Your task to perform on an android device: check android version Image 0: 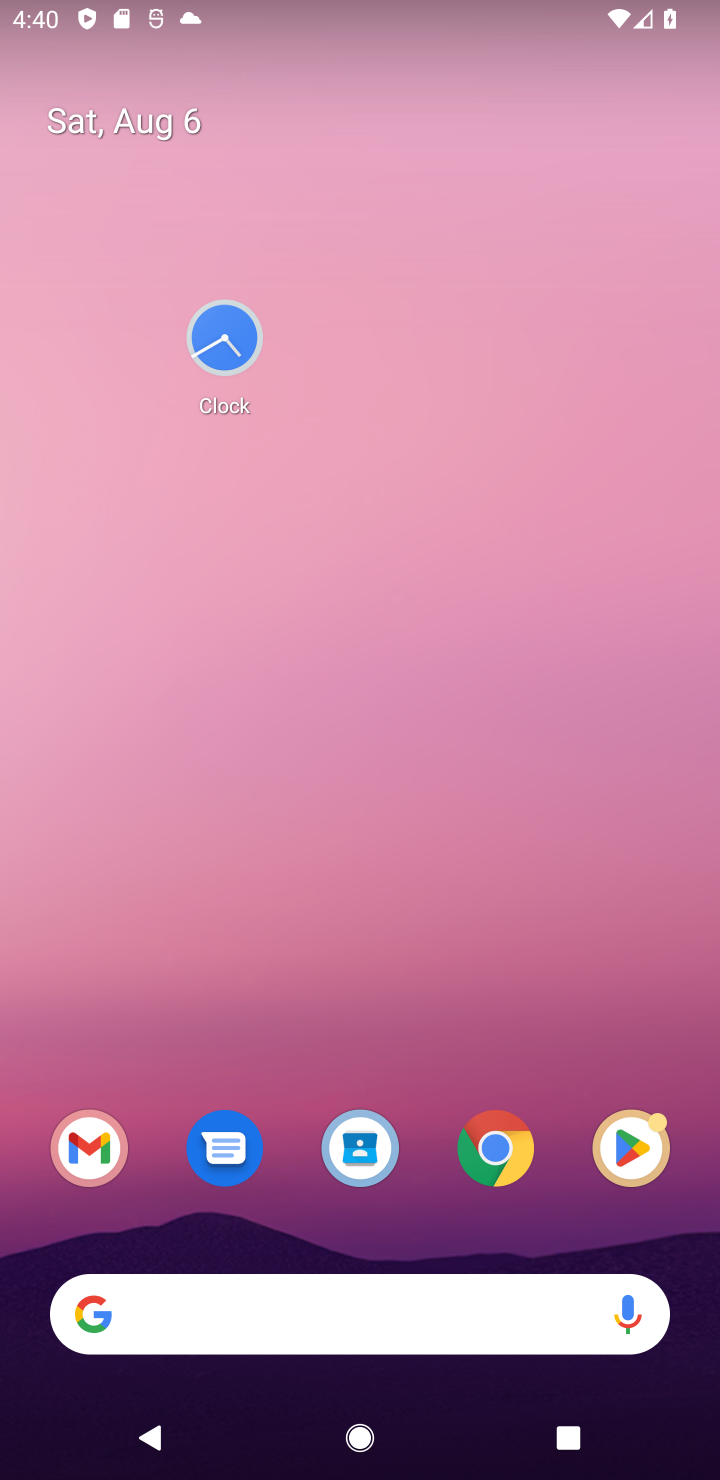
Step 0: drag from (306, 1220) to (600, 130)
Your task to perform on an android device: check android version Image 1: 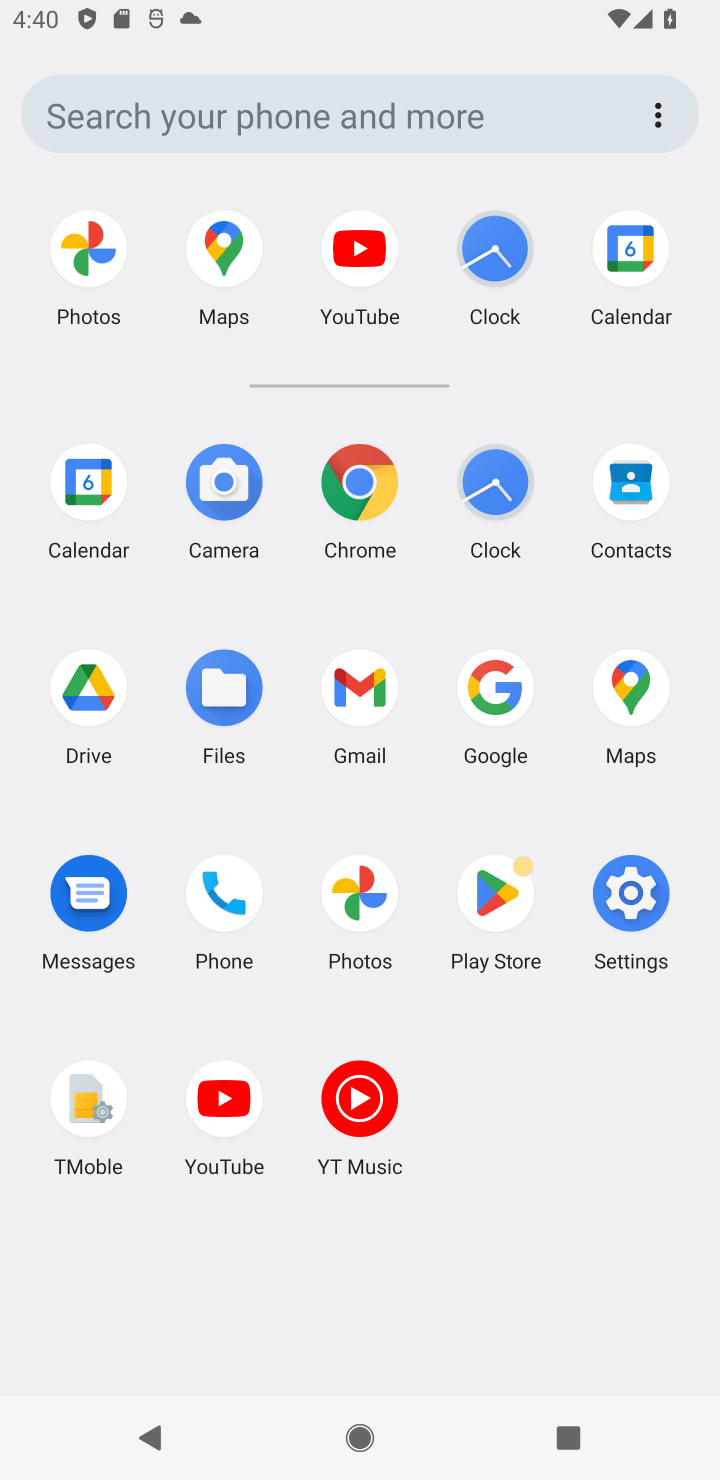
Step 1: click (635, 888)
Your task to perform on an android device: check android version Image 2: 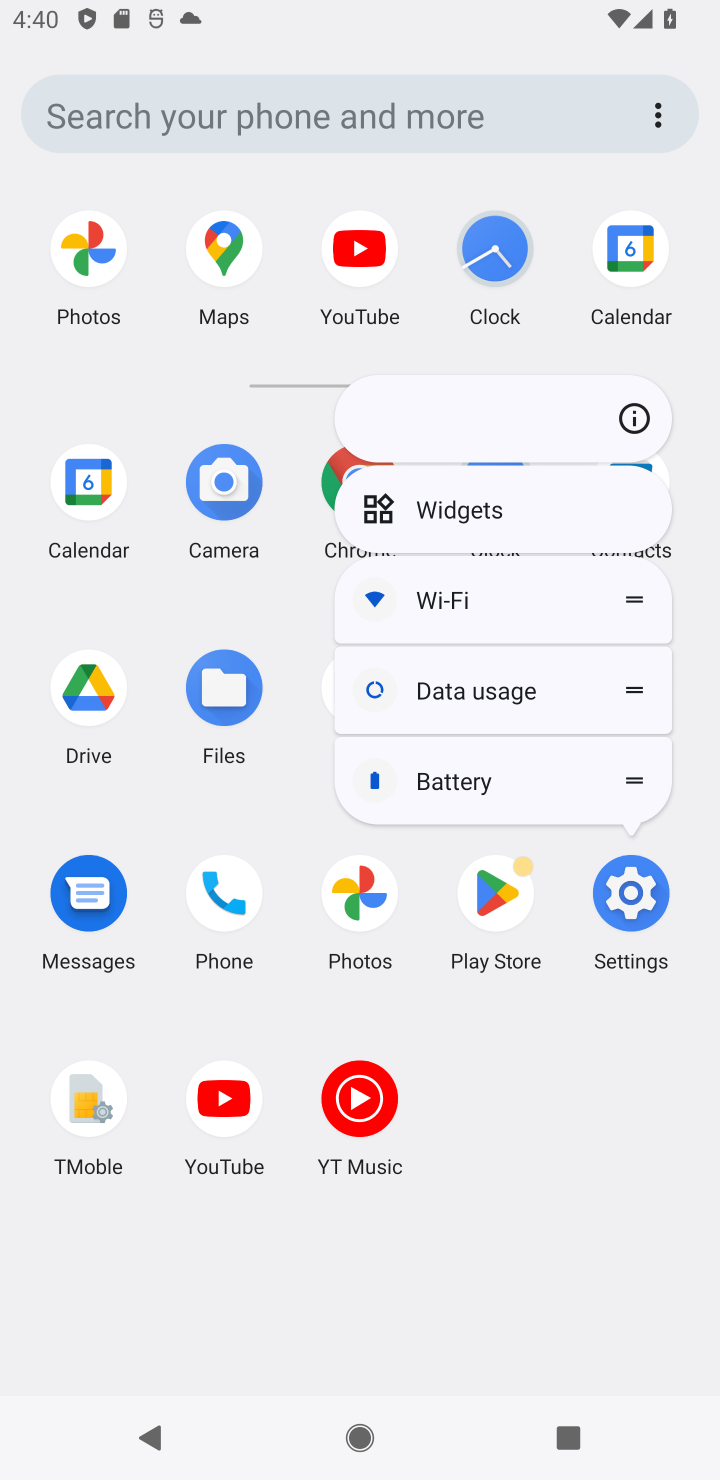
Step 2: click (642, 426)
Your task to perform on an android device: check android version Image 3: 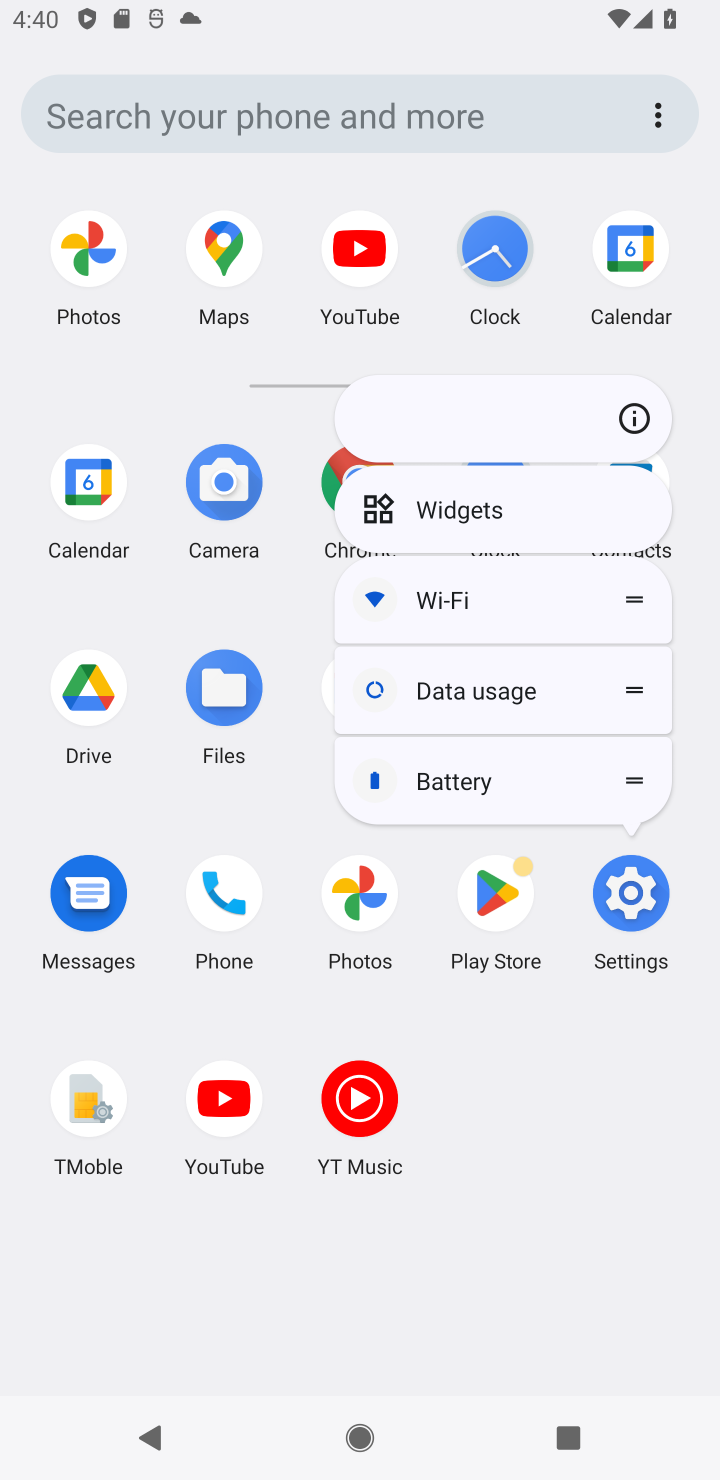
Step 3: click (644, 880)
Your task to perform on an android device: check android version Image 4: 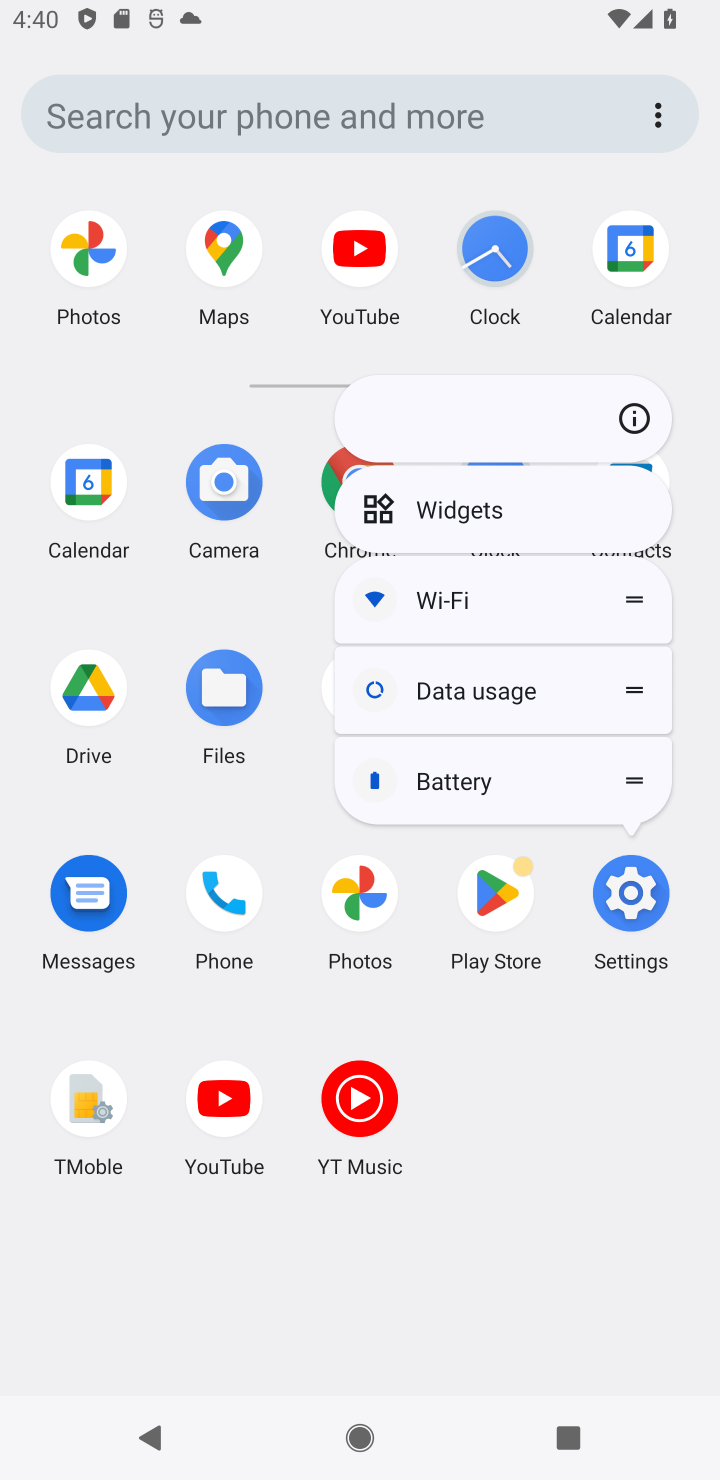
Step 4: click (620, 879)
Your task to perform on an android device: check android version Image 5: 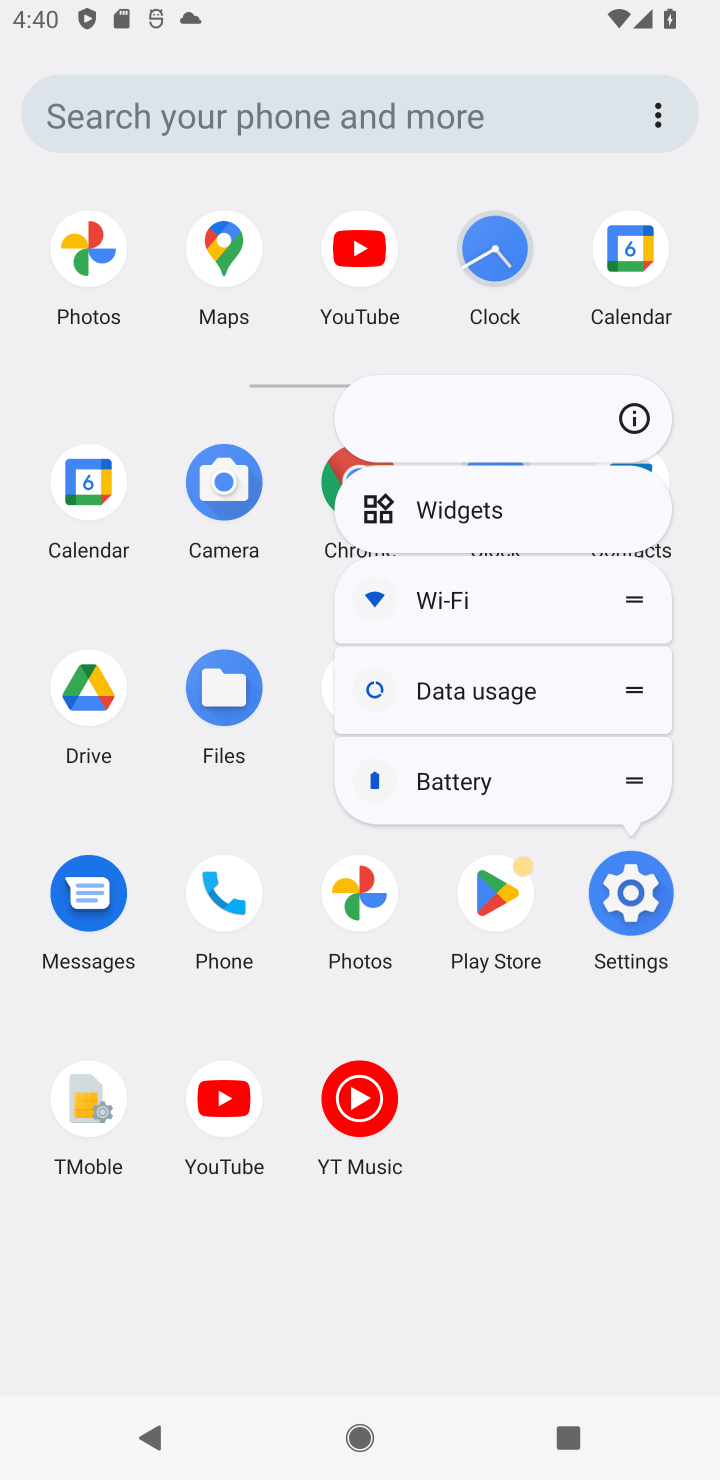
Step 5: click (620, 879)
Your task to perform on an android device: check android version Image 6: 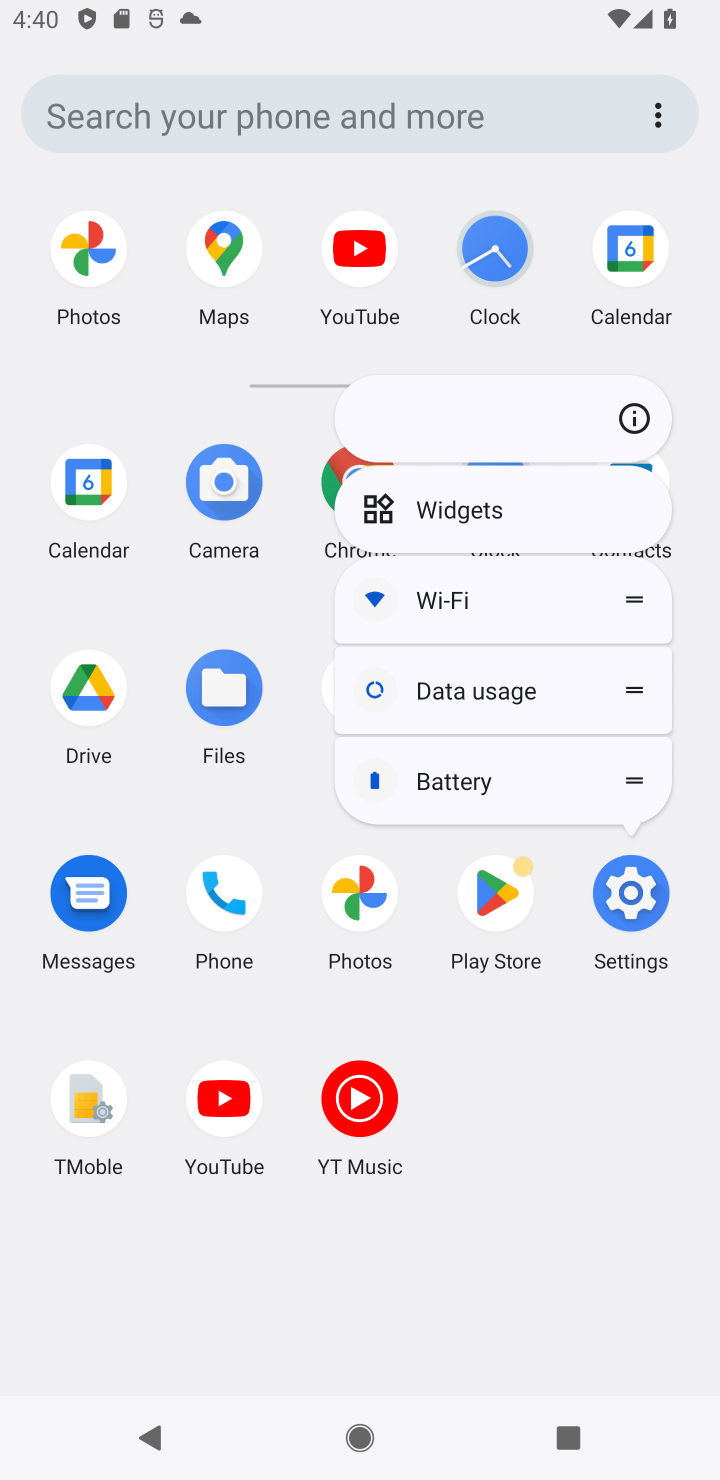
Step 6: click (620, 881)
Your task to perform on an android device: check android version Image 7: 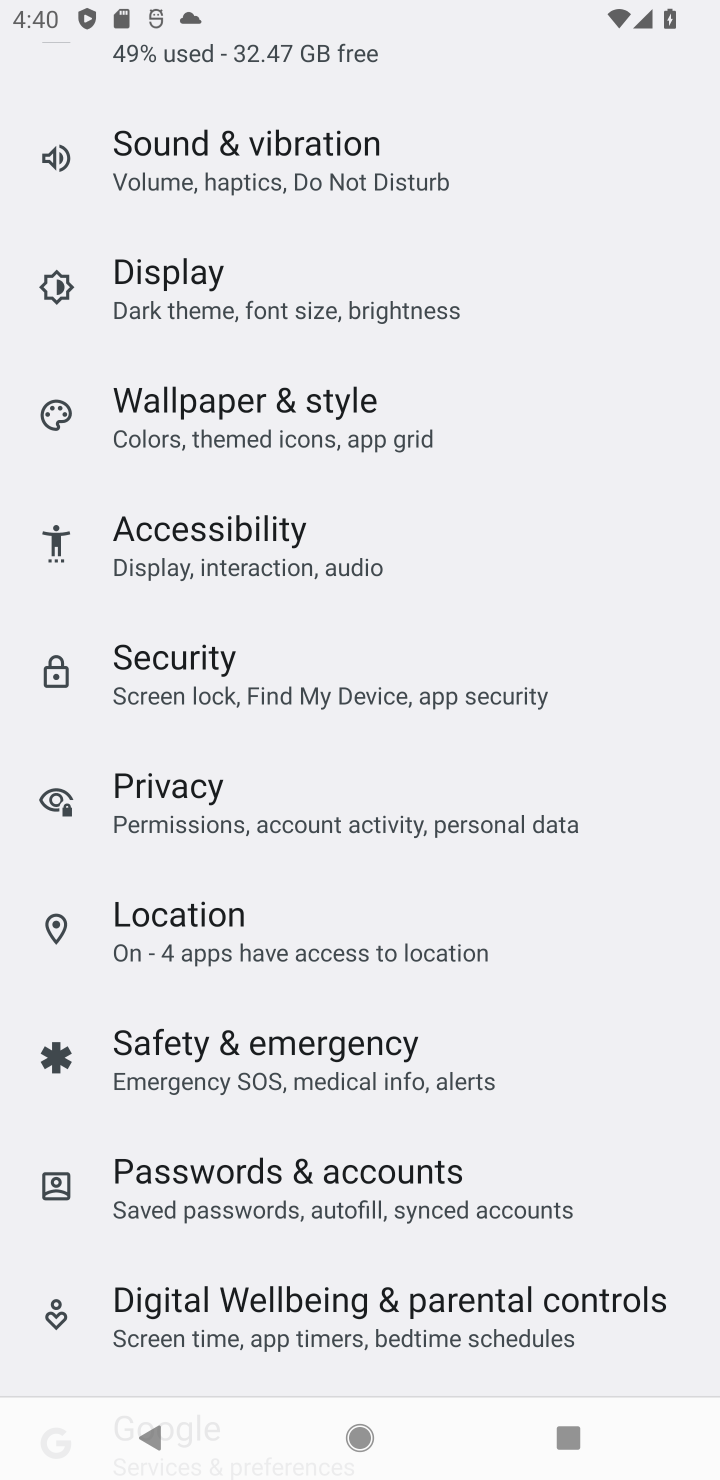
Step 7: drag from (341, 1215) to (441, 527)
Your task to perform on an android device: check android version Image 8: 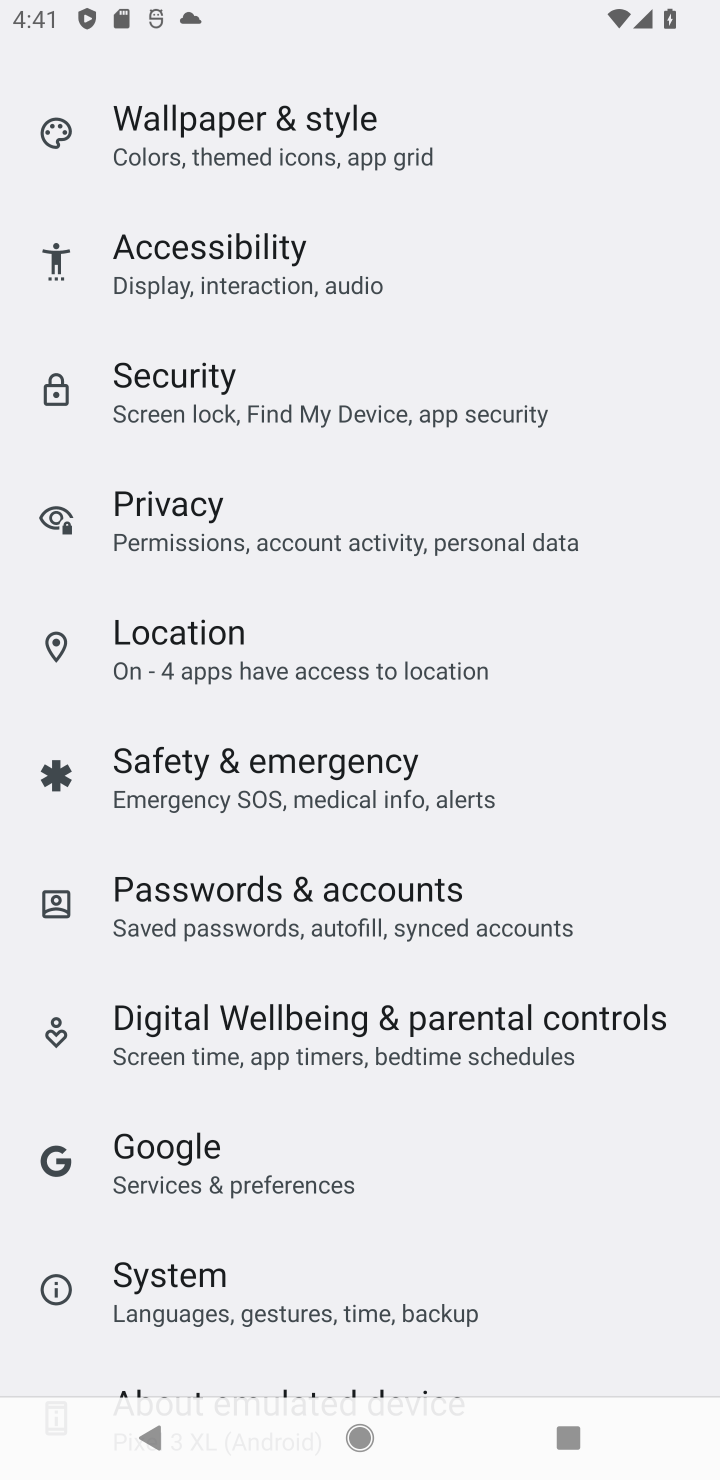
Step 8: drag from (339, 1202) to (403, 322)
Your task to perform on an android device: check android version Image 9: 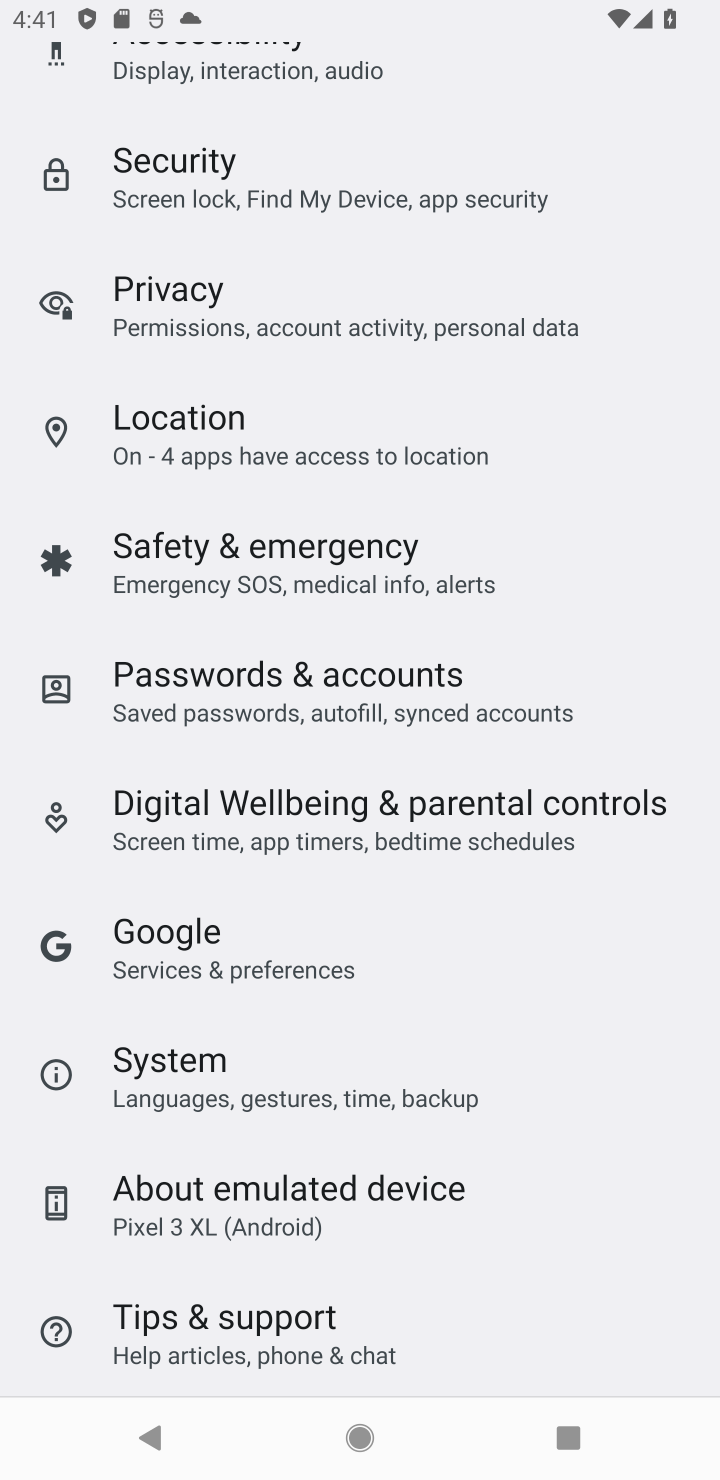
Step 9: drag from (254, 1300) to (432, 252)
Your task to perform on an android device: check android version Image 10: 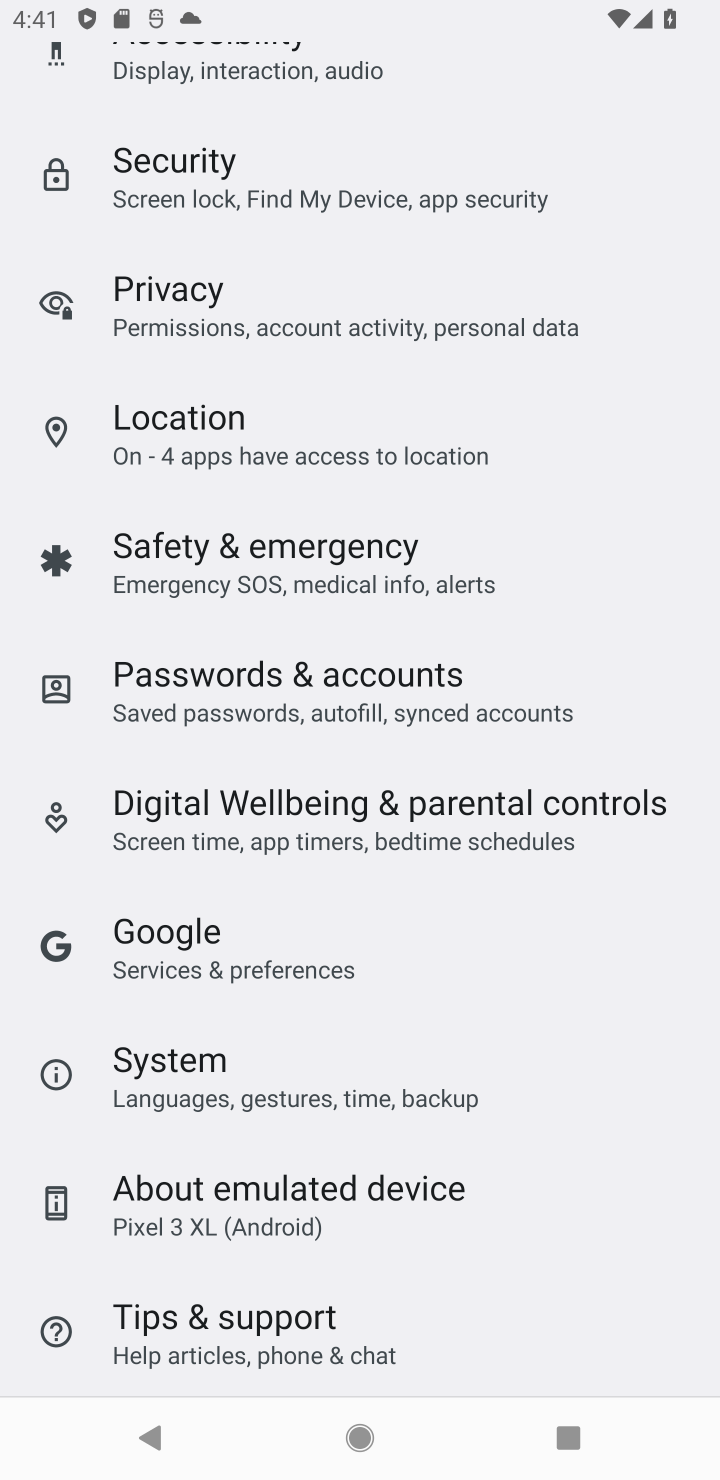
Step 10: click (219, 1180)
Your task to perform on an android device: check android version Image 11: 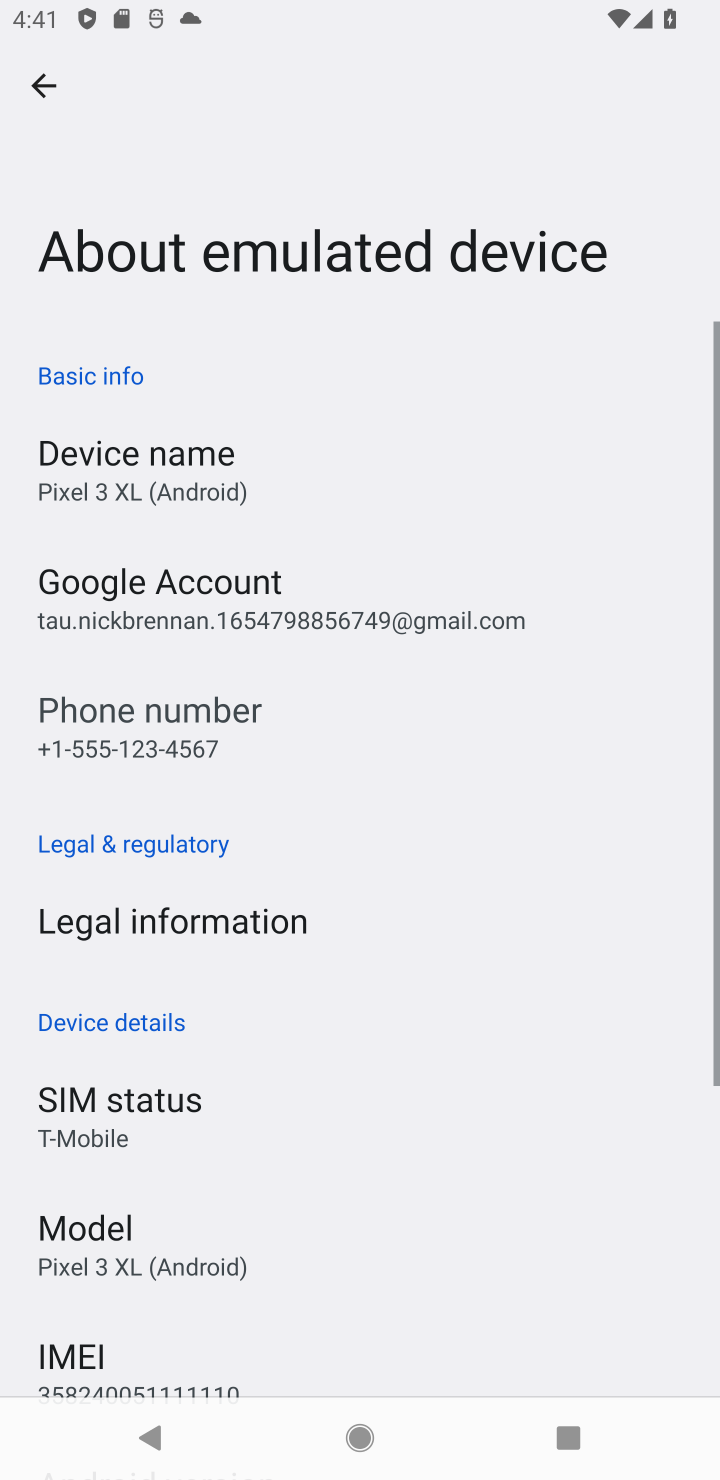
Step 11: drag from (201, 1263) to (337, 477)
Your task to perform on an android device: check android version Image 12: 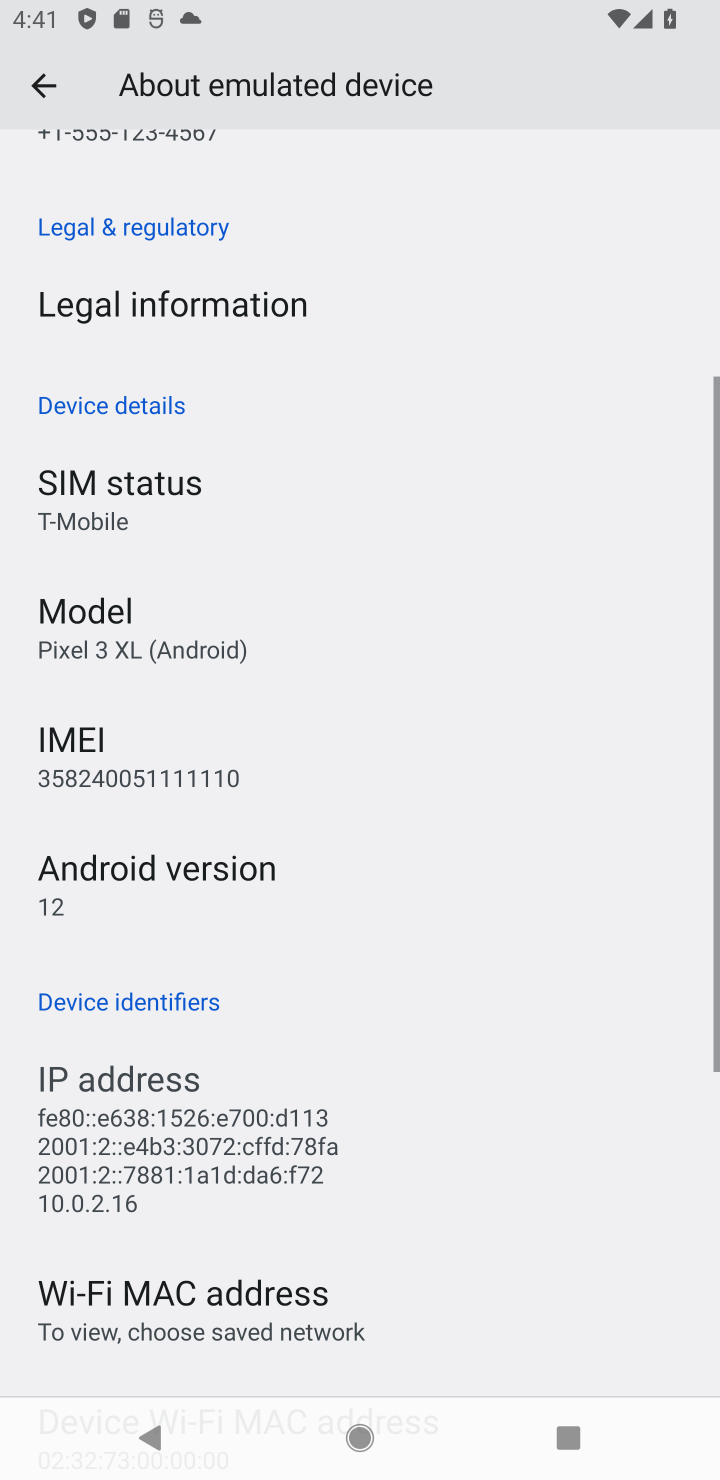
Step 12: click (160, 902)
Your task to perform on an android device: check android version Image 13: 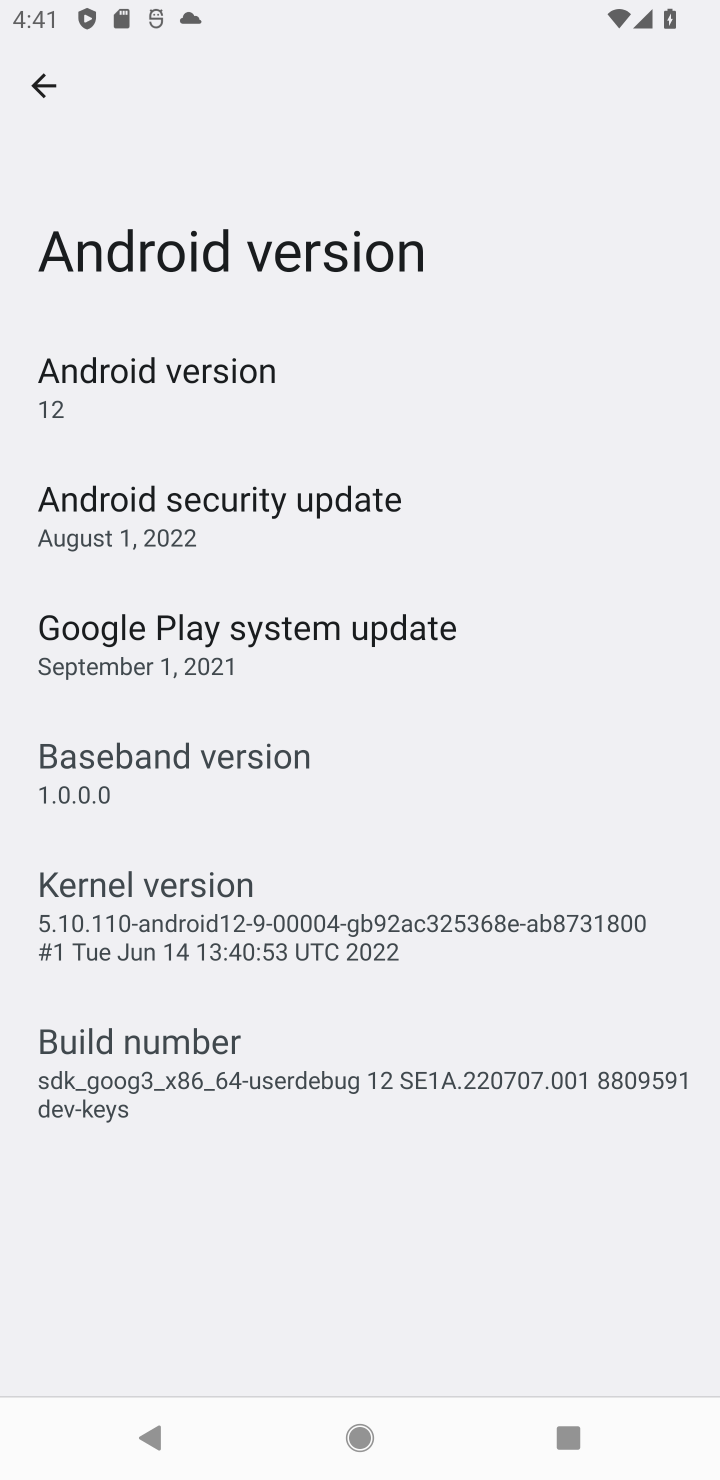
Step 13: click (293, 407)
Your task to perform on an android device: check android version Image 14: 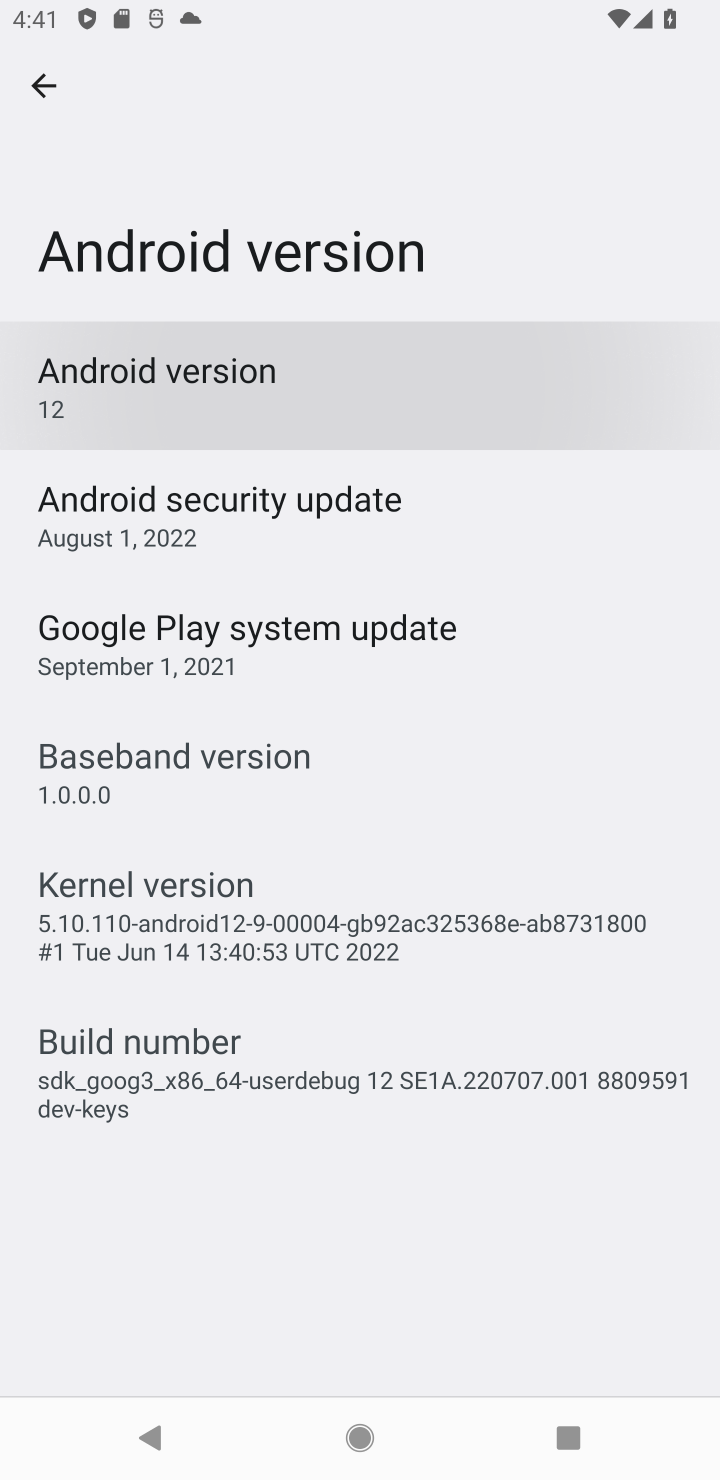
Step 14: task complete